Your task to perform on an android device: Show me productivity apps on the Play Store Image 0: 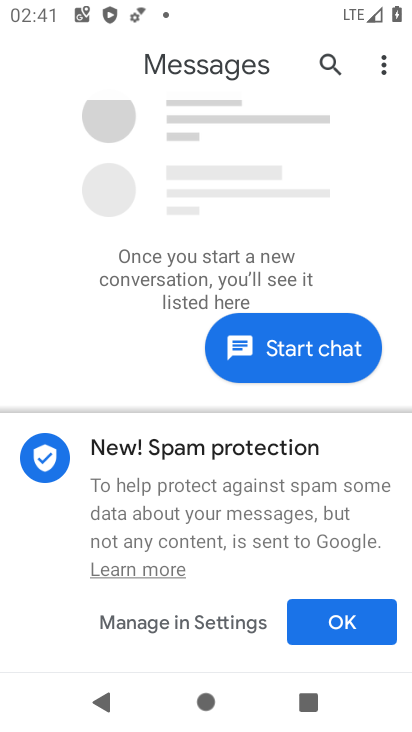
Step 0: press home button
Your task to perform on an android device: Show me productivity apps on the Play Store Image 1: 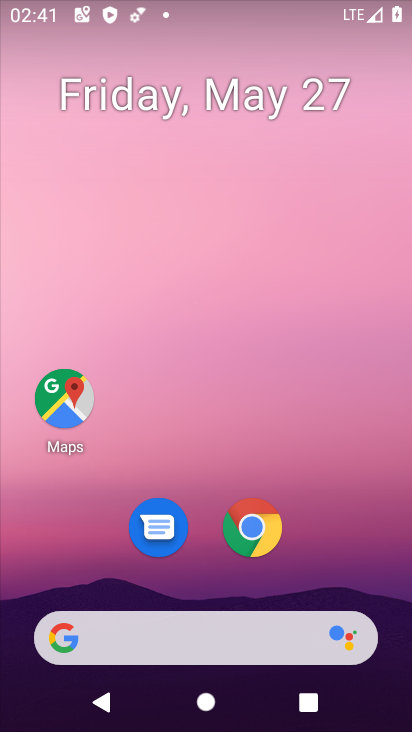
Step 1: drag from (216, 567) to (197, 84)
Your task to perform on an android device: Show me productivity apps on the Play Store Image 2: 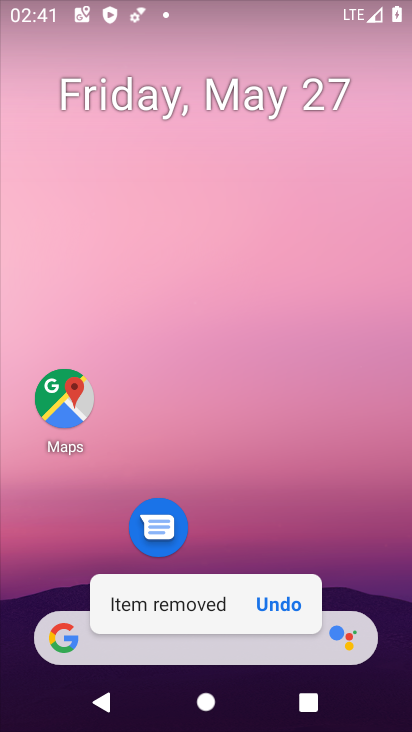
Step 2: click (281, 613)
Your task to perform on an android device: Show me productivity apps on the Play Store Image 3: 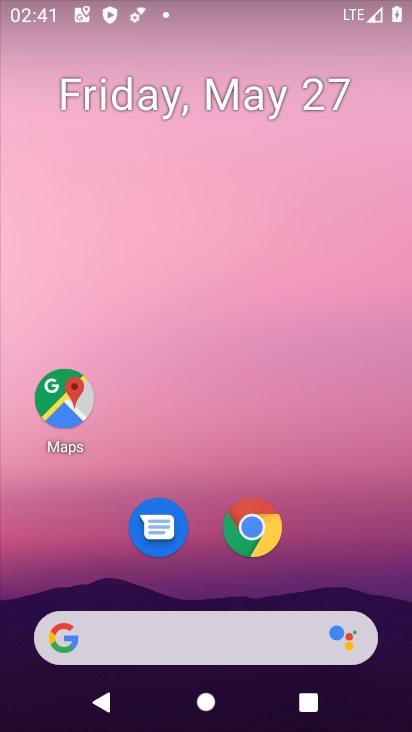
Step 3: drag from (277, 586) to (240, 2)
Your task to perform on an android device: Show me productivity apps on the Play Store Image 4: 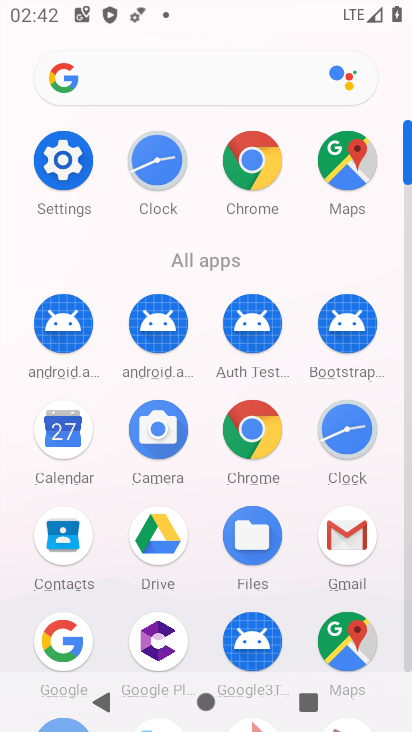
Step 4: drag from (203, 643) to (224, 238)
Your task to perform on an android device: Show me productivity apps on the Play Store Image 5: 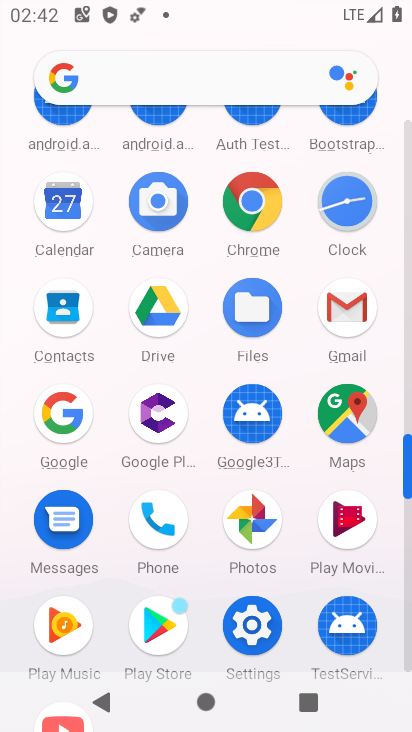
Step 5: click (160, 641)
Your task to perform on an android device: Show me productivity apps on the Play Store Image 6: 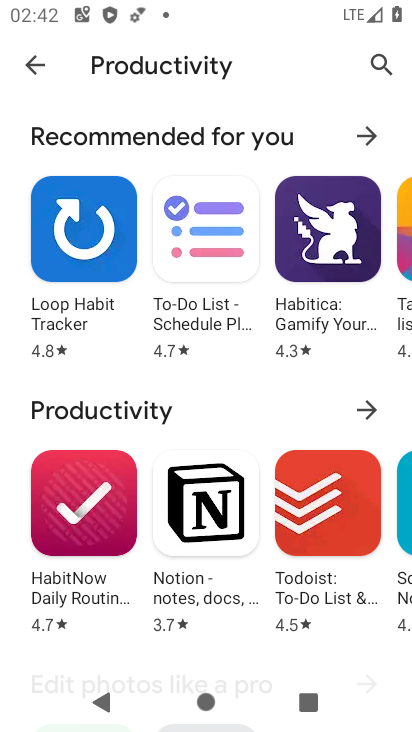
Step 6: task complete